Your task to perform on an android device: Go to eBay Image 0: 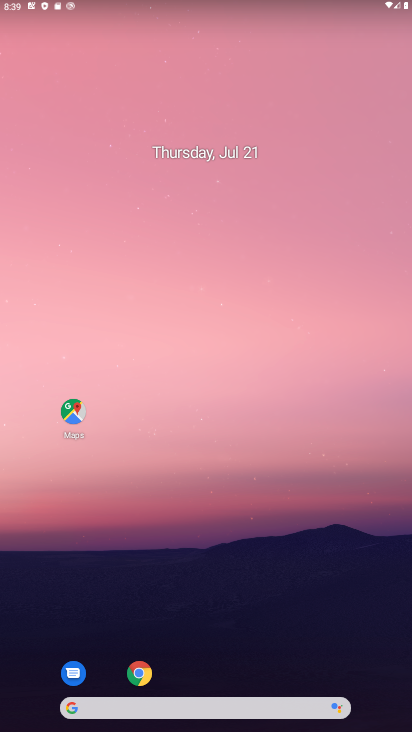
Step 0: click (137, 674)
Your task to perform on an android device: Go to eBay Image 1: 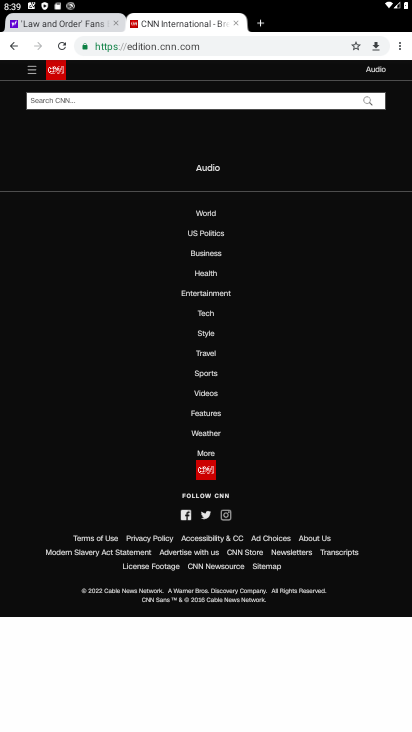
Step 1: click (400, 49)
Your task to perform on an android device: Go to eBay Image 2: 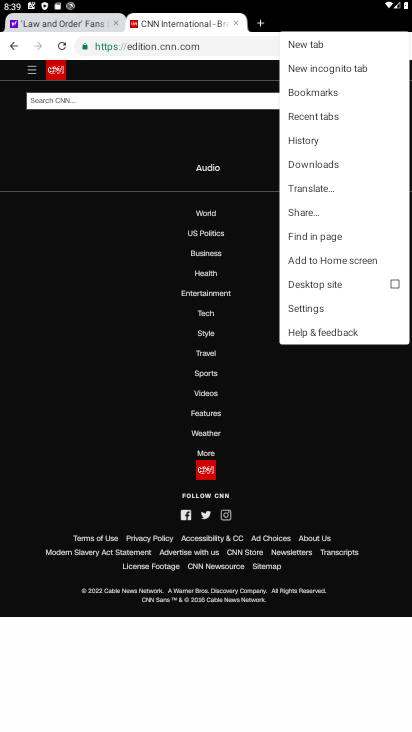
Step 2: click (314, 43)
Your task to perform on an android device: Go to eBay Image 3: 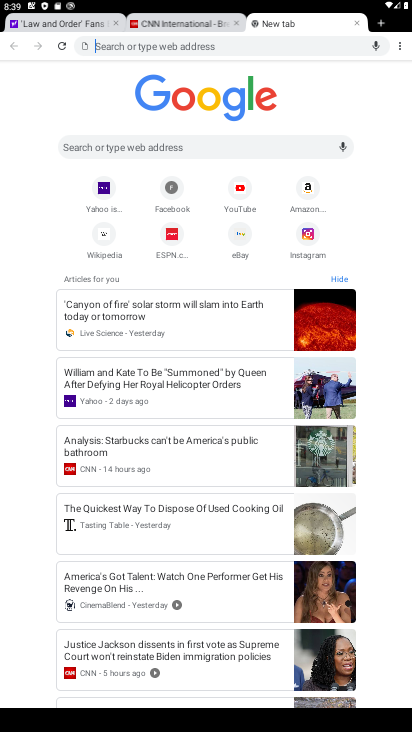
Step 3: click (240, 236)
Your task to perform on an android device: Go to eBay Image 4: 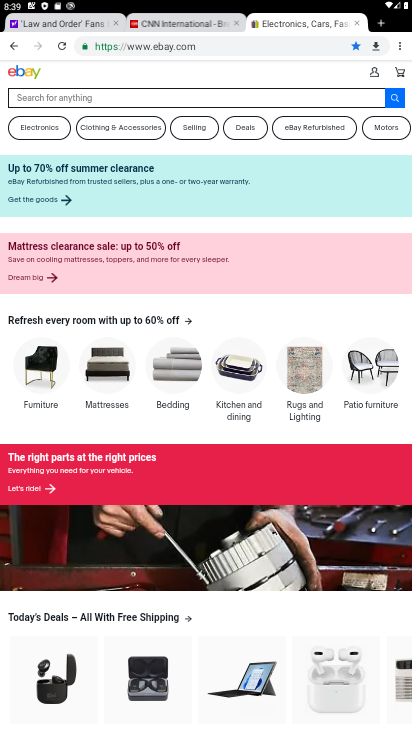
Step 4: task complete